Your task to perform on an android device: find snoozed emails in the gmail app Image 0: 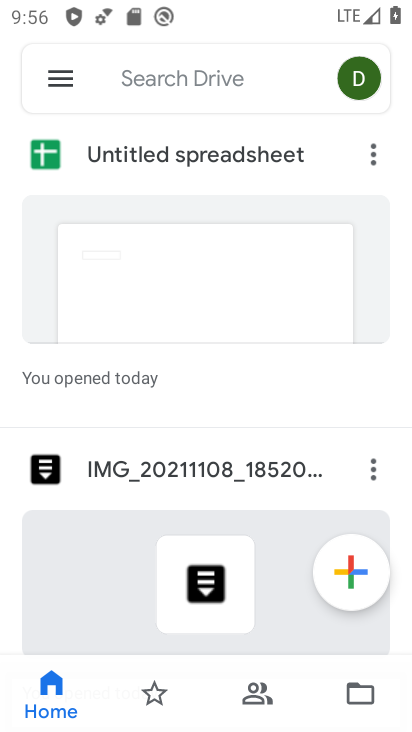
Step 0: press home button
Your task to perform on an android device: find snoozed emails in the gmail app Image 1: 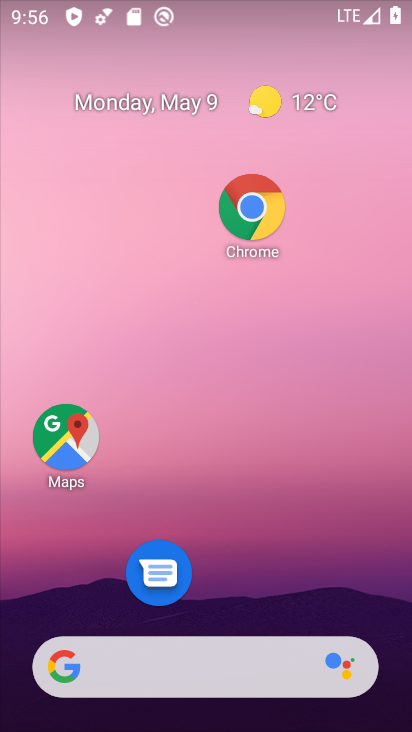
Step 1: drag from (245, 589) to (239, 314)
Your task to perform on an android device: find snoozed emails in the gmail app Image 2: 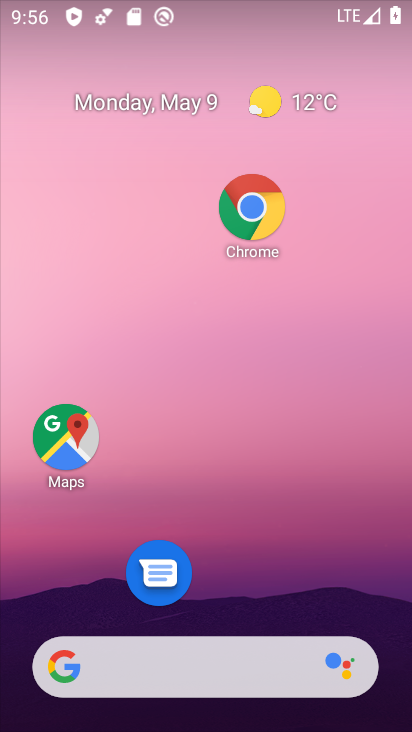
Step 2: drag from (206, 615) to (237, 246)
Your task to perform on an android device: find snoozed emails in the gmail app Image 3: 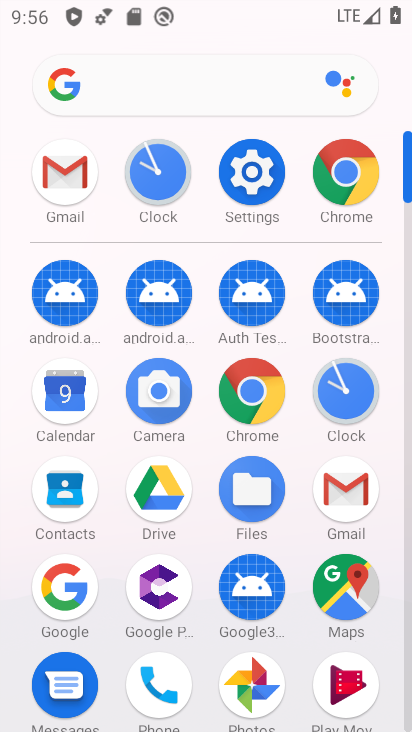
Step 3: click (343, 517)
Your task to perform on an android device: find snoozed emails in the gmail app Image 4: 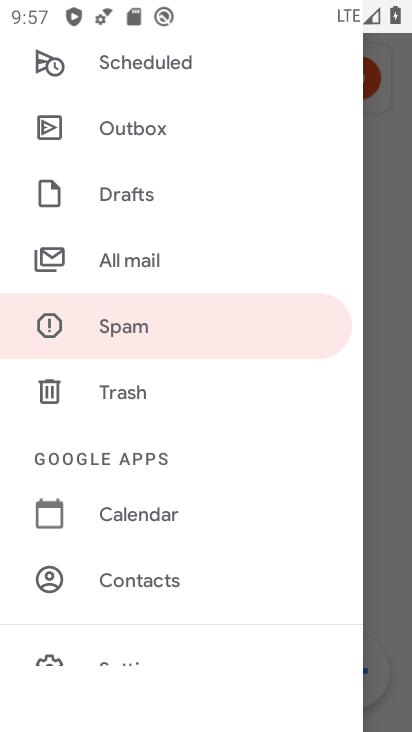
Step 4: drag from (138, 526) to (169, 359)
Your task to perform on an android device: find snoozed emails in the gmail app Image 5: 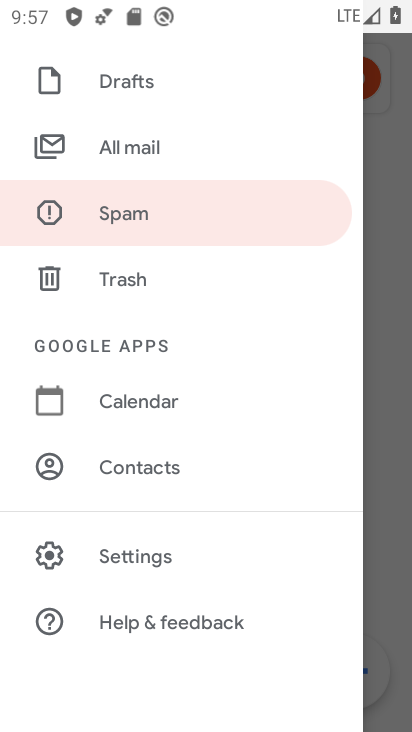
Step 5: drag from (173, 315) to (121, 722)
Your task to perform on an android device: find snoozed emails in the gmail app Image 6: 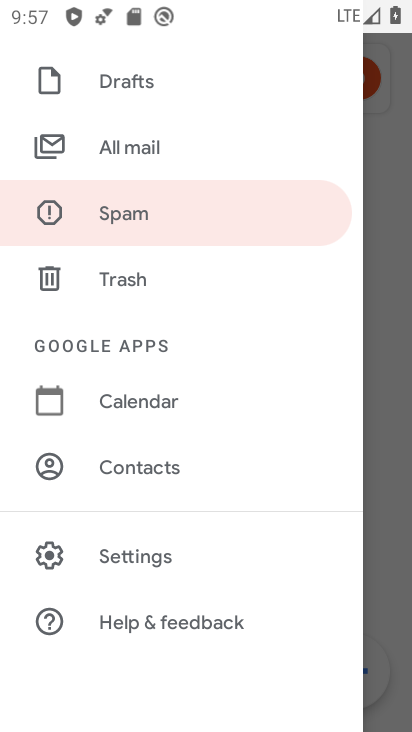
Step 6: drag from (151, 228) to (143, 391)
Your task to perform on an android device: find snoozed emails in the gmail app Image 7: 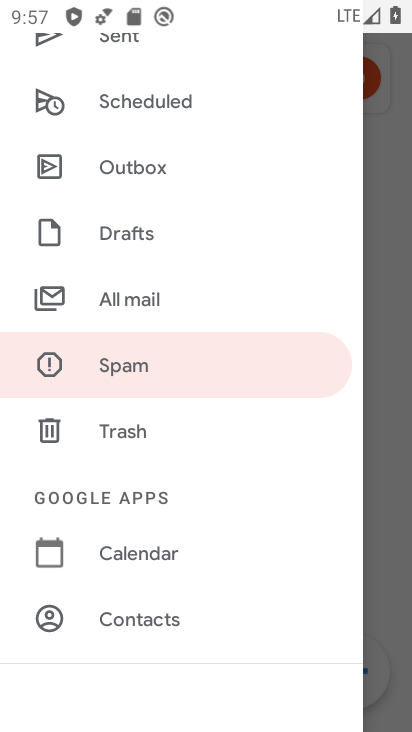
Step 7: drag from (137, 209) to (111, 704)
Your task to perform on an android device: find snoozed emails in the gmail app Image 8: 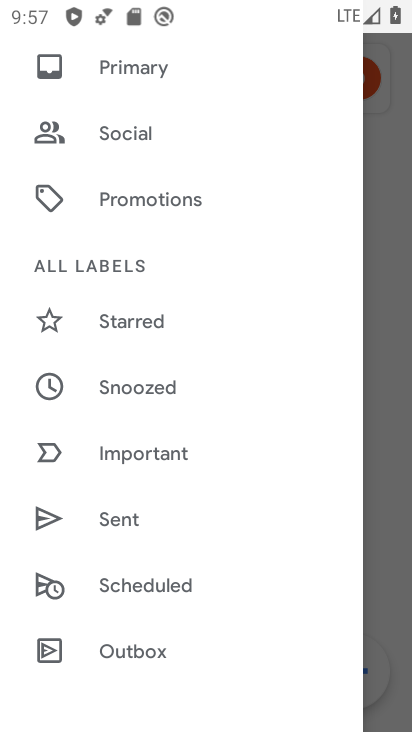
Step 8: click (115, 403)
Your task to perform on an android device: find snoozed emails in the gmail app Image 9: 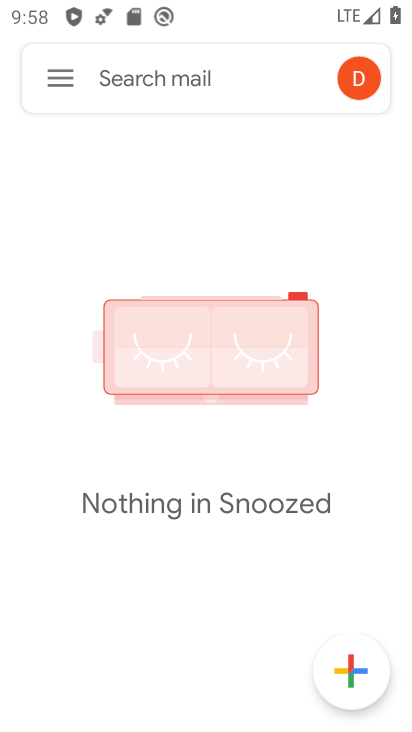
Step 9: task complete